Your task to perform on an android device: Search for sushi restaurants on Maps Image 0: 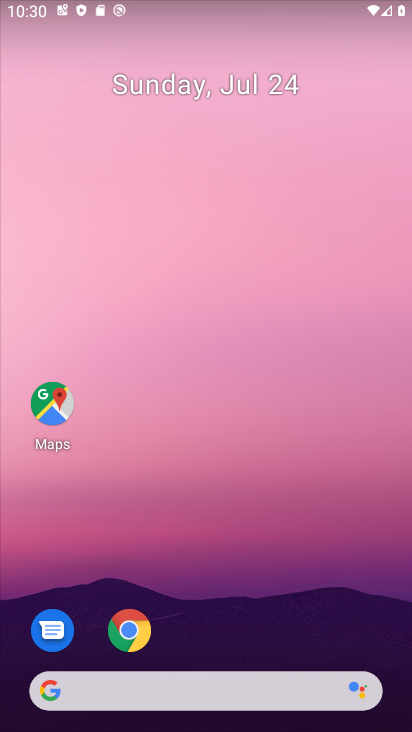
Step 0: click (37, 403)
Your task to perform on an android device: Search for sushi restaurants on Maps Image 1: 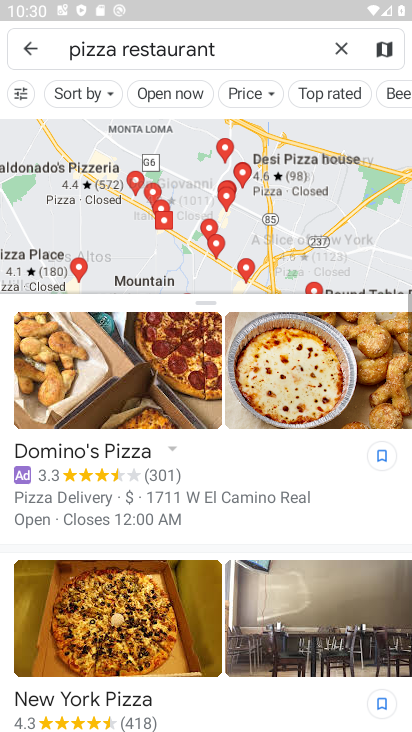
Step 1: click (334, 49)
Your task to perform on an android device: Search for sushi restaurants on Maps Image 2: 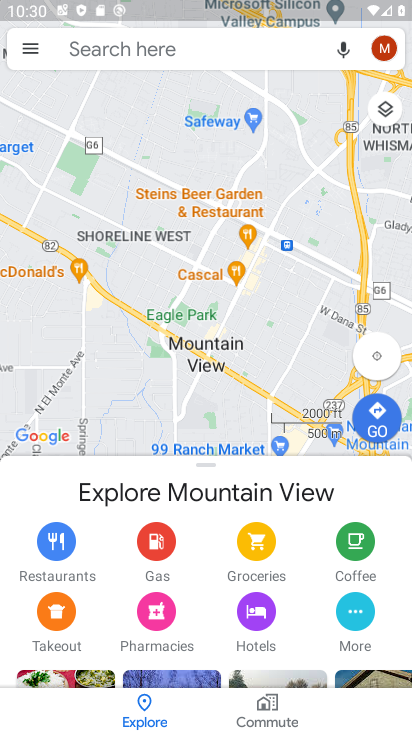
Step 2: click (271, 45)
Your task to perform on an android device: Search for sushi restaurants on Maps Image 3: 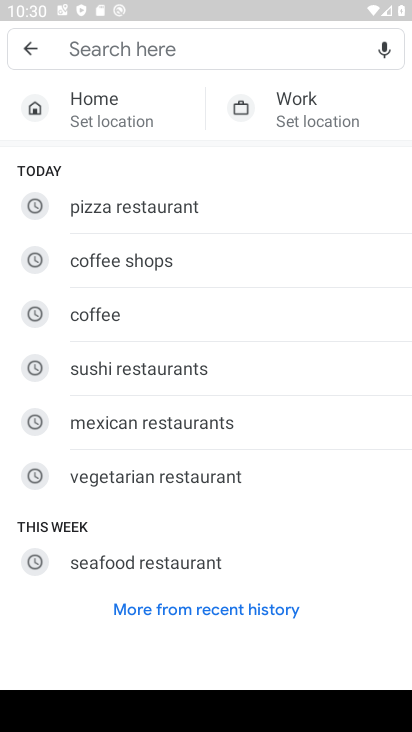
Step 3: click (153, 385)
Your task to perform on an android device: Search for sushi restaurants on Maps Image 4: 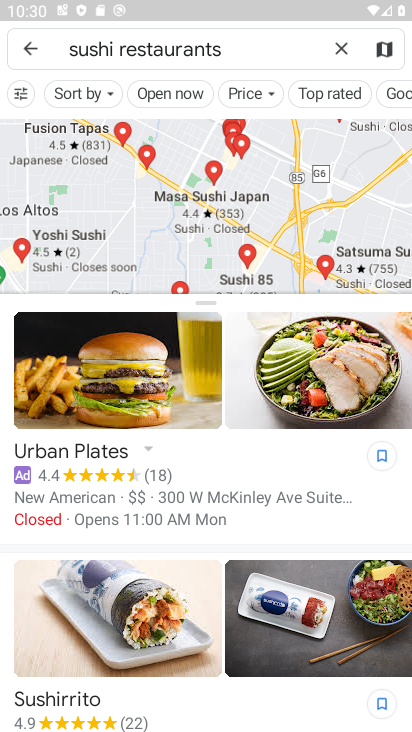
Step 4: task complete